Your task to perform on an android device: What's the weather today? Image 0: 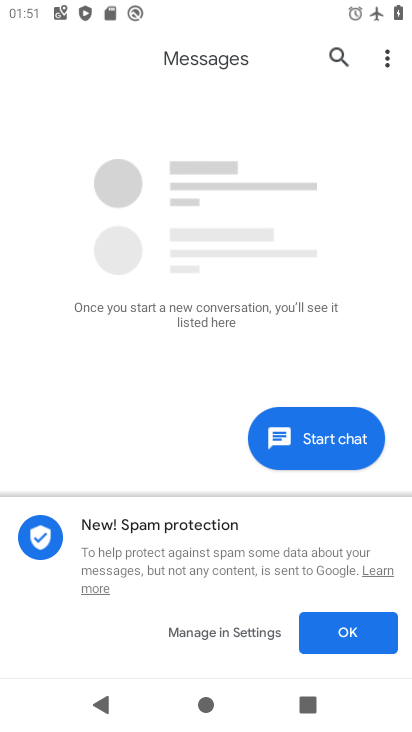
Step 0: press home button
Your task to perform on an android device: What's the weather today? Image 1: 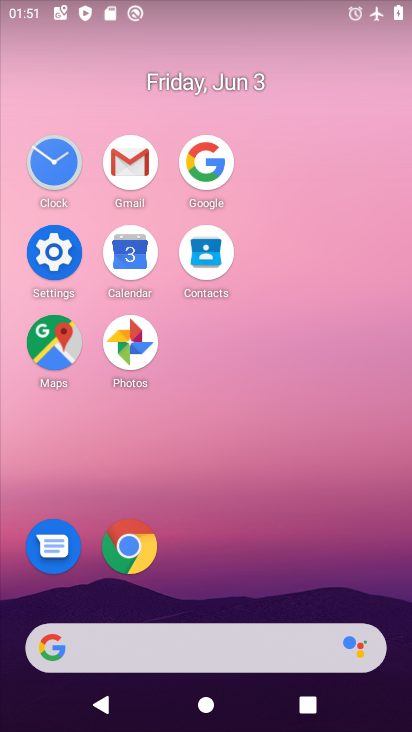
Step 1: click (225, 157)
Your task to perform on an android device: What's the weather today? Image 2: 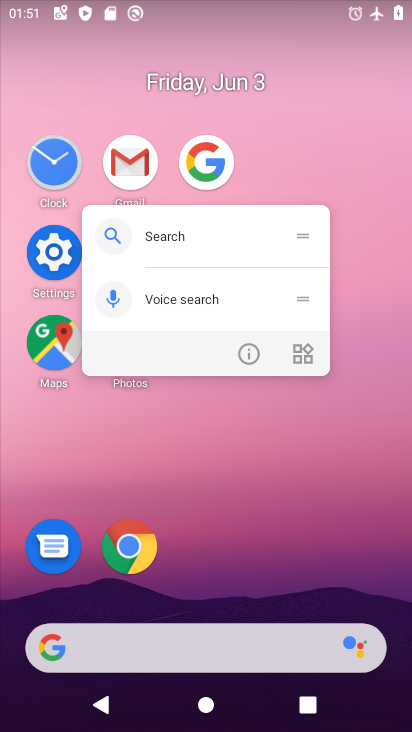
Step 2: click (225, 157)
Your task to perform on an android device: What's the weather today? Image 3: 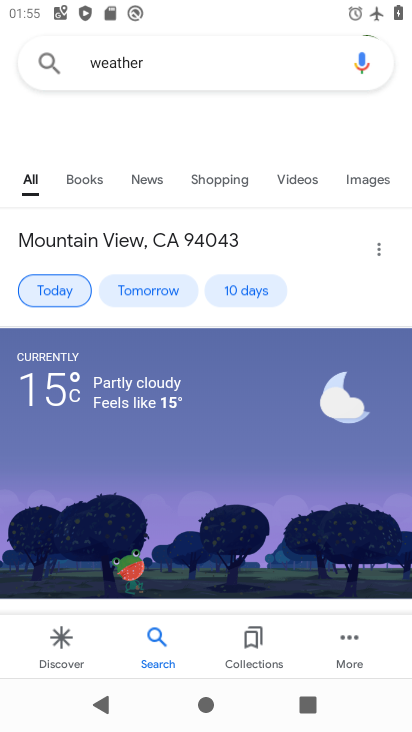
Step 3: task complete